Your task to perform on an android device: Go to sound settings Image 0: 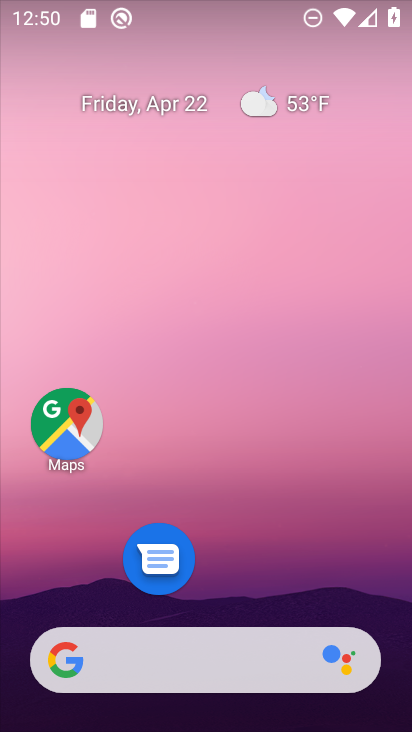
Step 0: drag from (251, 631) to (247, 91)
Your task to perform on an android device: Go to sound settings Image 1: 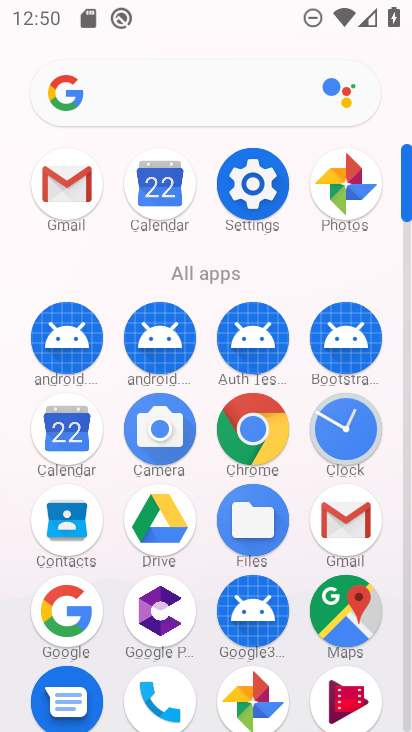
Step 1: click (246, 174)
Your task to perform on an android device: Go to sound settings Image 2: 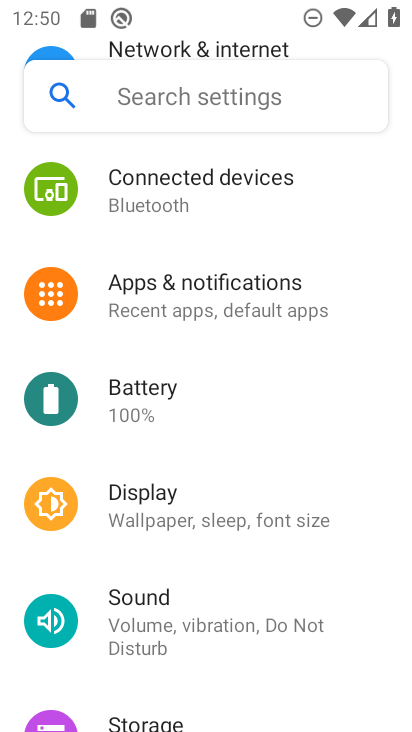
Step 2: click (123, 615)
Your task to perform on an android device: Go to sound settings Image 3: 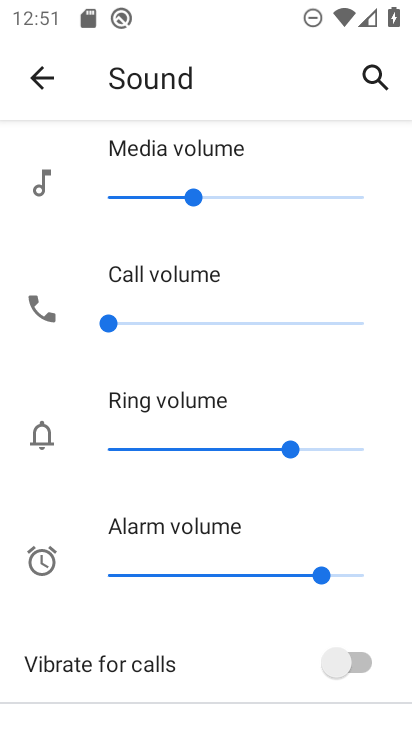
Step 3: task complete